Your task to perform on an android device: See recent photos Image 0: 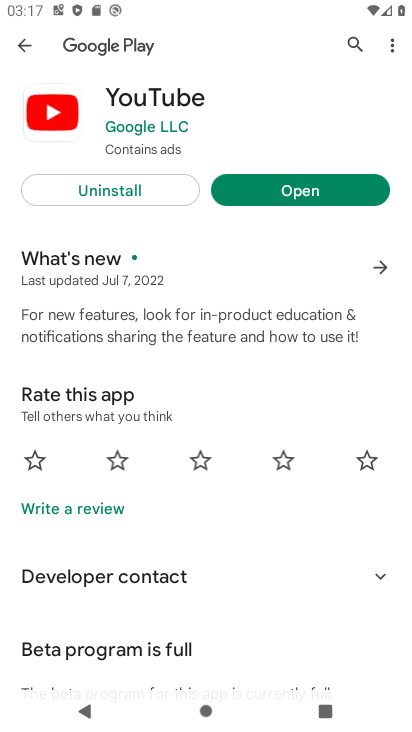
Step 0: press home button
Your task to perform on an android device: See recent photos Image 1: 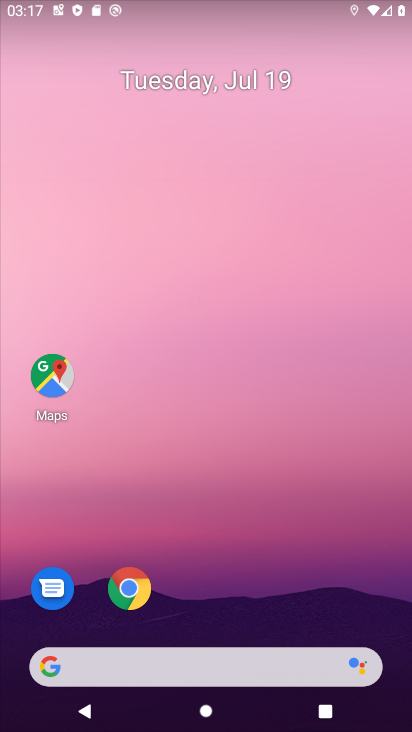
Step 1: drag from (248, 526) to (230, 67)
Your task to perform on an android device: See recent photos Image 2: 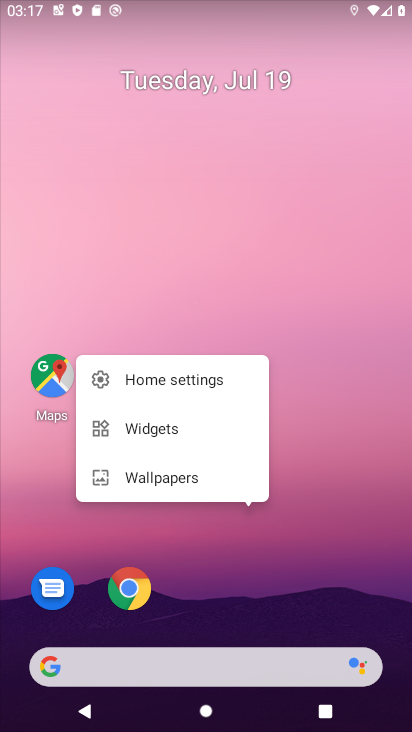
Step 2: click (310, 379)
Your task to perform on an android device: See recent photos Image 3: 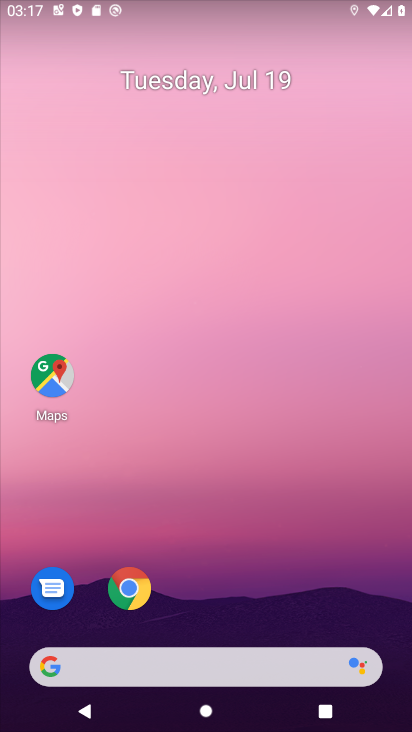
Step 3: drag from (240, 535) to (202, 109)
Your task to perform on an android device: See recent photos Image 4: 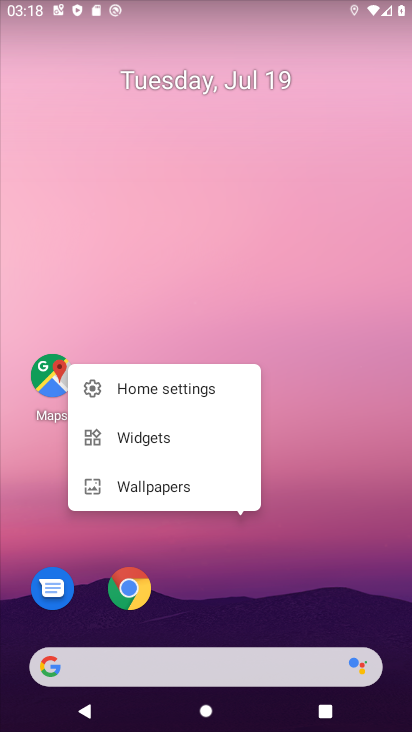
Step 4: click (380, 441)
Your task to perform on an android device: See recent photos Image 5: 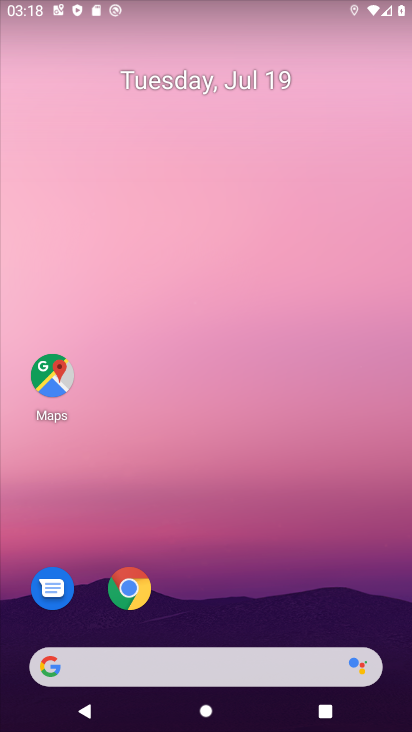
Step 5: drag from (236, 579) to (152, 177)
Your task to perform on an android device: See recent photos Image 6: 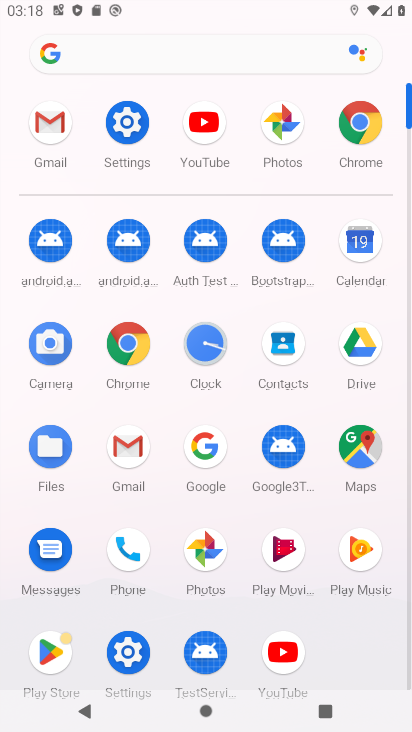
Step 6: click (209, 553)
Your task to perform on an android device: See recent photos Image 7: 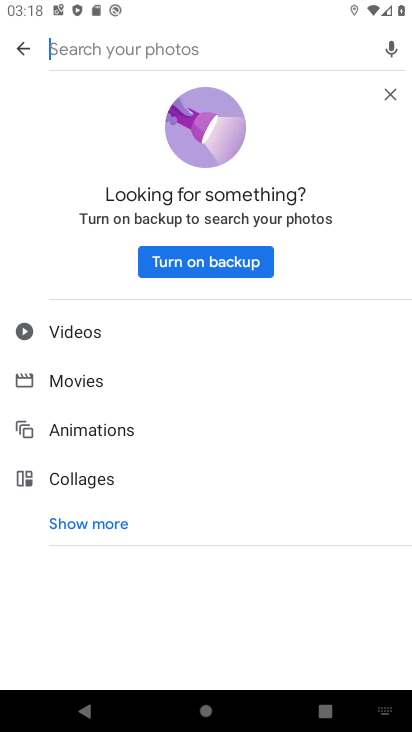
Step 7: click (21, 47)
Your task to perform on an android device: See recent photos Image 8: 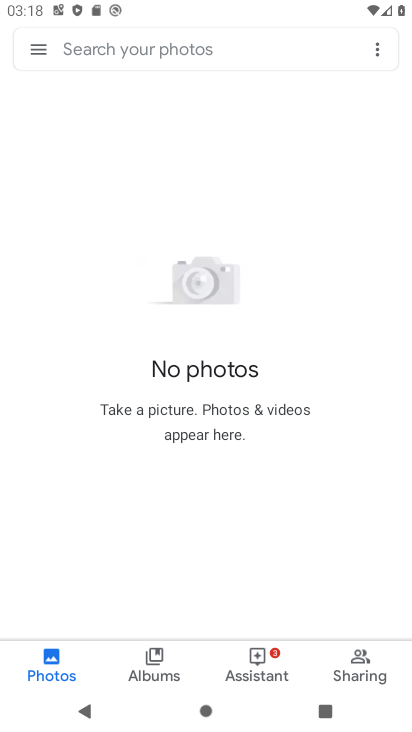
Step 8: task complete